Your task to perform on an android device: Open settings on Google Maps Image 0: 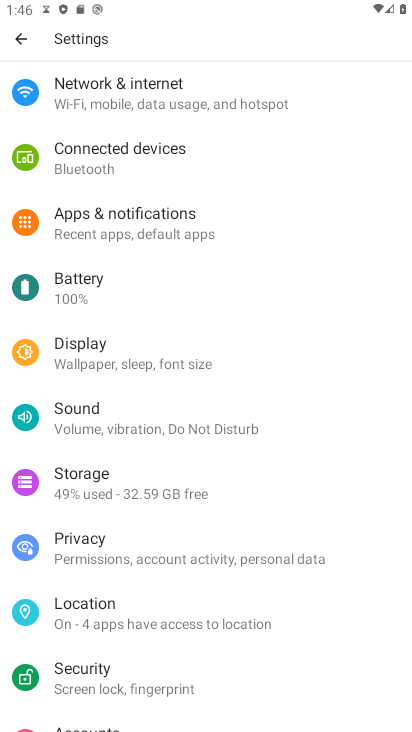
Step 0: click (7, 42)
Your task to perform on an android device: Open settings on Google Maps Image 1: 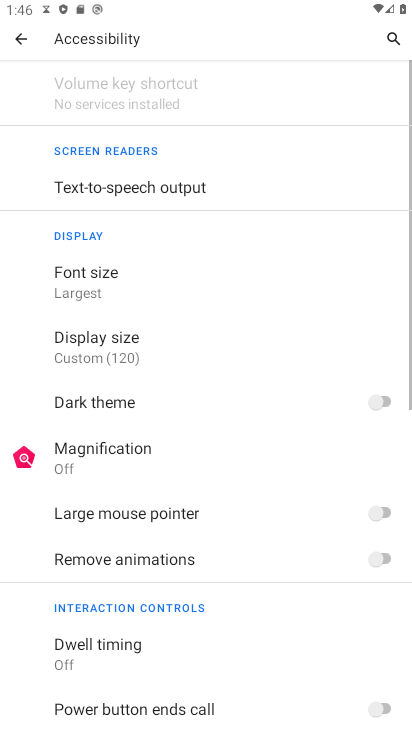
Step 1: click (18, 44)
Your task to perform on an android device: Open settings on Google Maps Image 2: 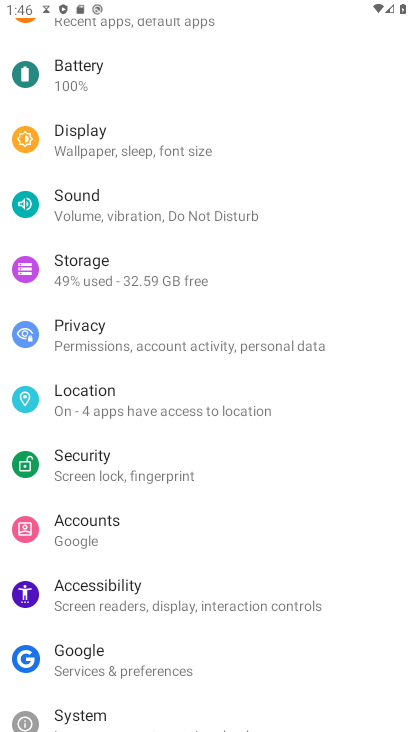
Step 2: press home button
Your task to perform on an android device: Open settings on Google Maps Image 3: 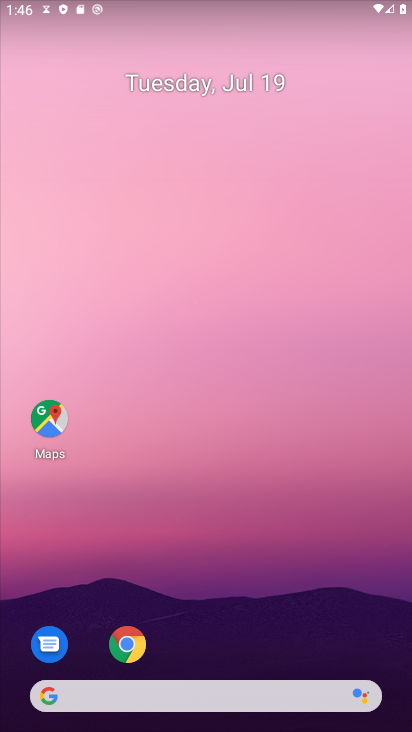
Step 3: drag from (204, 636) to (139, 166)
Your task to perform on an android device: Open settings on Google Maps Image 4: 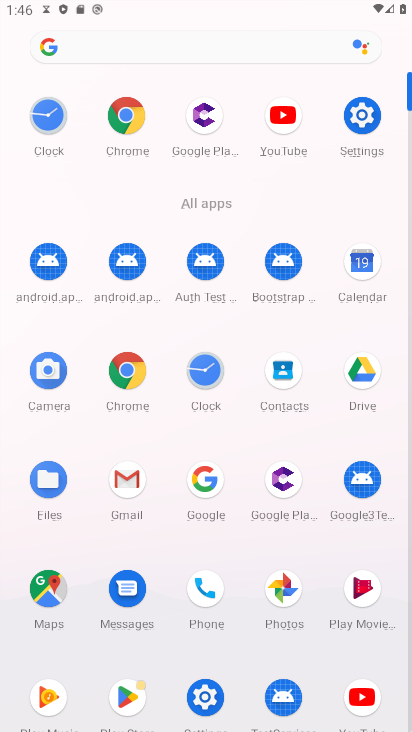
Step 4: click (213, 494)
Your task to perform on an android device: Open settings on Google Maps Image 5: 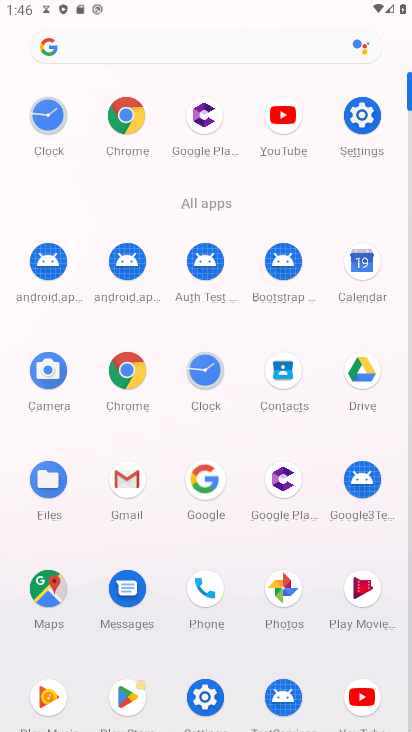
Step 5: click (207, 491)
Your task to perform on an android device: Open settings on Google Maps Image 6: 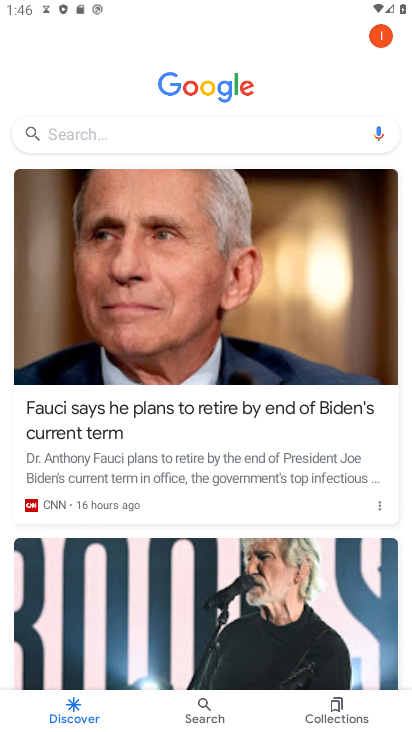
Step 6: drag from (384, 42) to (382, 635)
Your task to perform on an android device: Open settings on Google Maps Image 7: 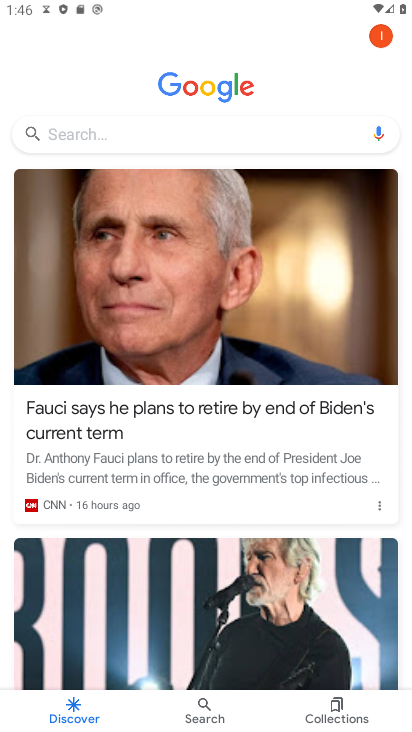
Step 7: click (379, 36)
Your task to perform on an android device: Open settings on Google Maps Image 8: 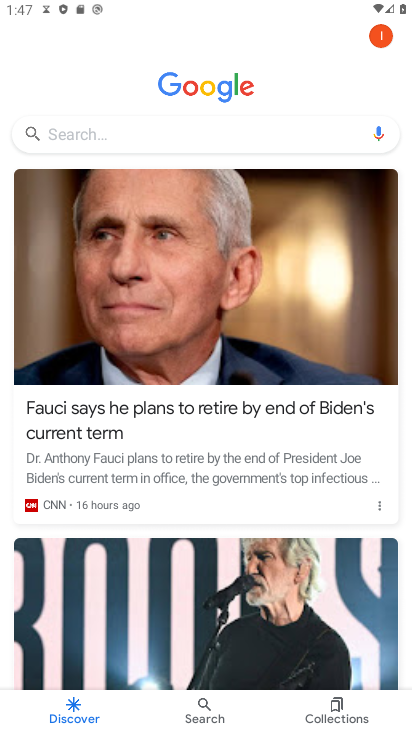
Step 8: drag from (379, 36) to (380, 467)
Your task to perform on an android device: Open settings on Google Maps Image 9: 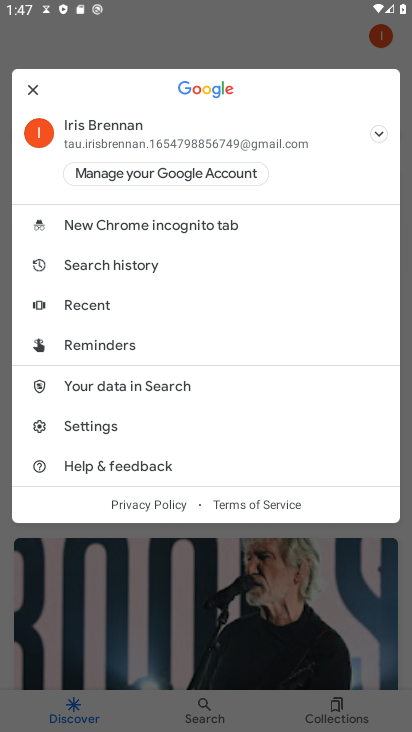
Step 9: drag from (378, 36) to (87, 417)
Your task to perform on an android device: Open settings on Google Maps Image 10: 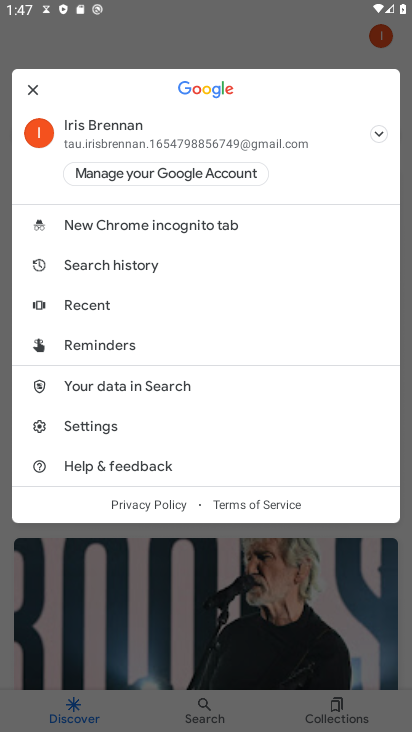
Step 10: click (88, 417)
Your task to perform on an android device: Open settings on Google Maps Image 11: 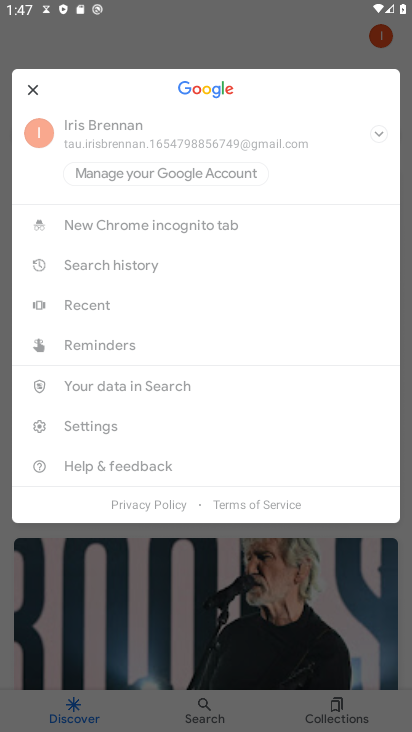
Step 11: click (80, 426)
Your task to perform on an android device: Open settings on Google Maps Image 12: 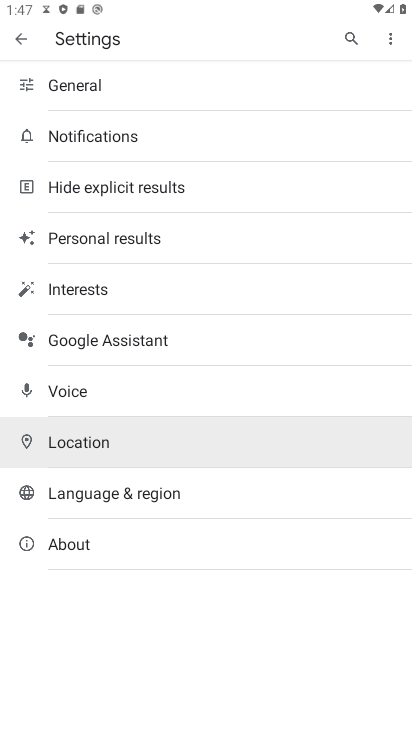
Step 12: click (80, 426)
Your task to perform on an android device: Open settings on Google Maps Image 13: 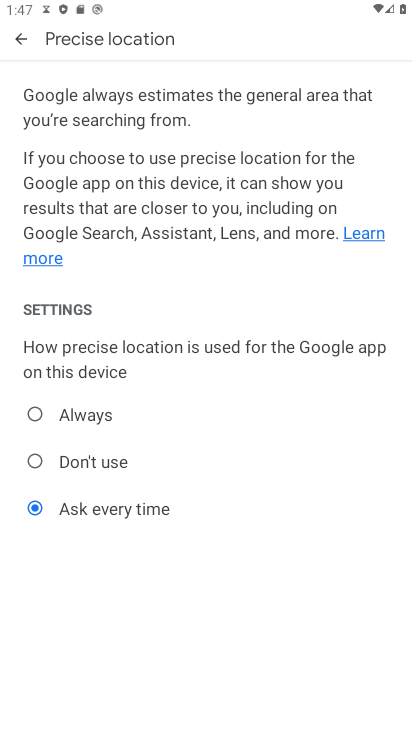
Step 13: task complete